Your task to perform on an android device: turn on priority inbox in the gmail app Image 0: 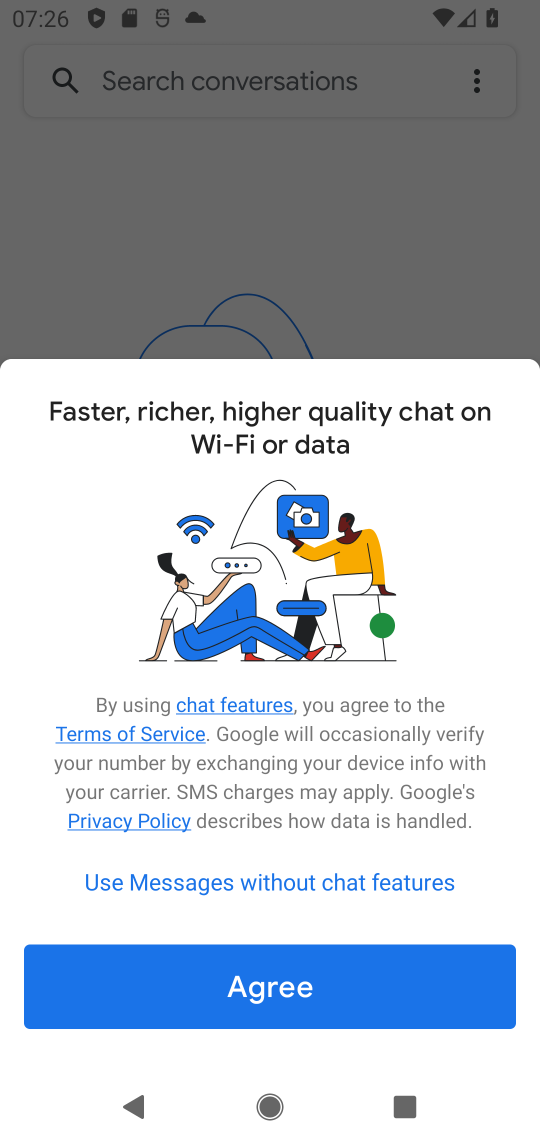
Step 0: press home button
Your task to perform on an android device: turn on priority inbox in the gmail app Image 1: 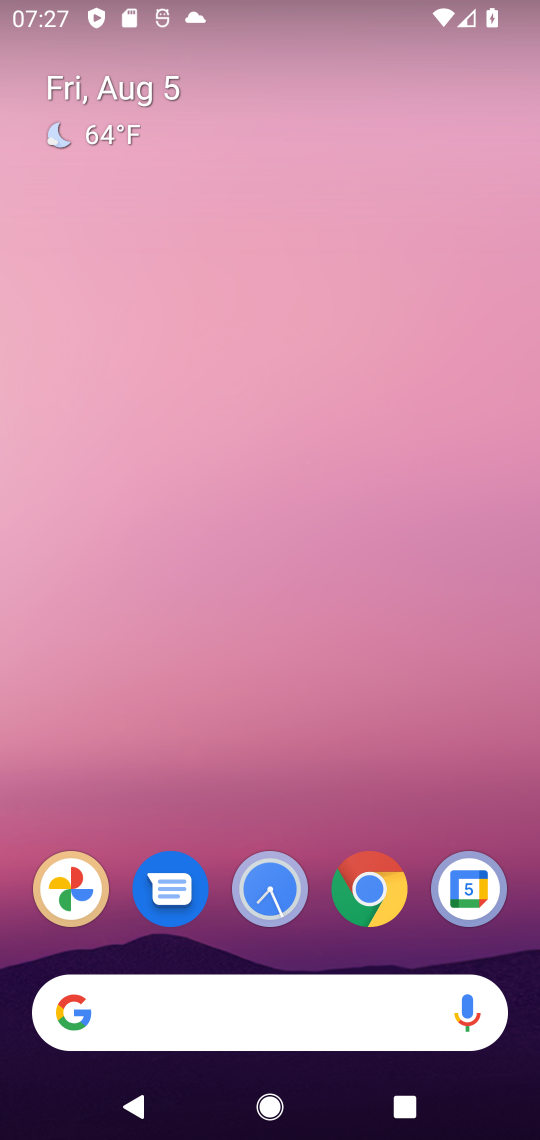
Step 1: drag from (217, 919) to (217, 252)
Your task to perform on an android device: turn on priority inbox in the gmail app Image 2: 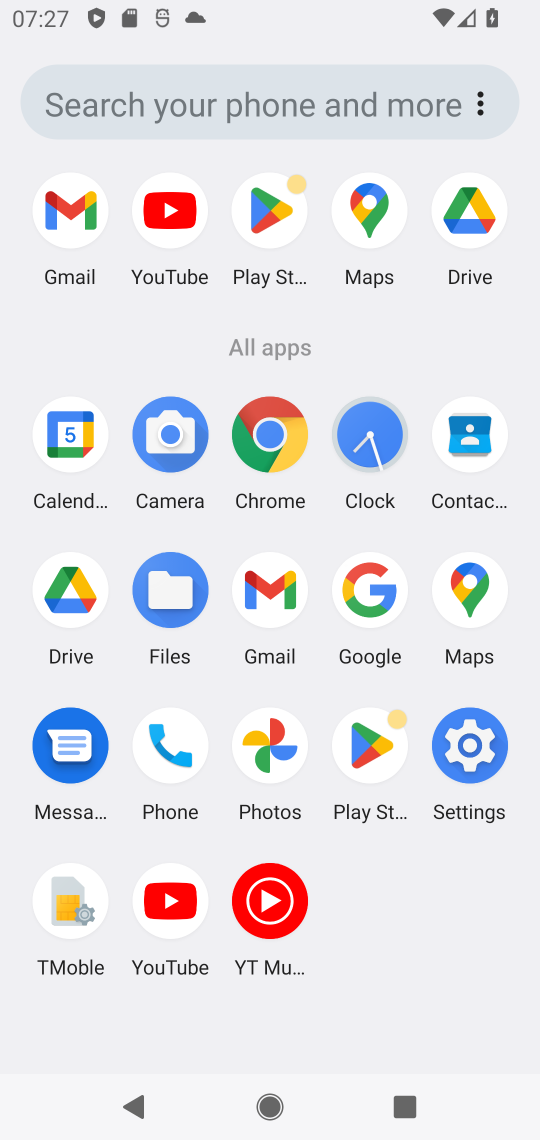
Step 2: click (249, 597)
Your task to perform on an android device: turn on priority inbox in the gmail app Image 3: 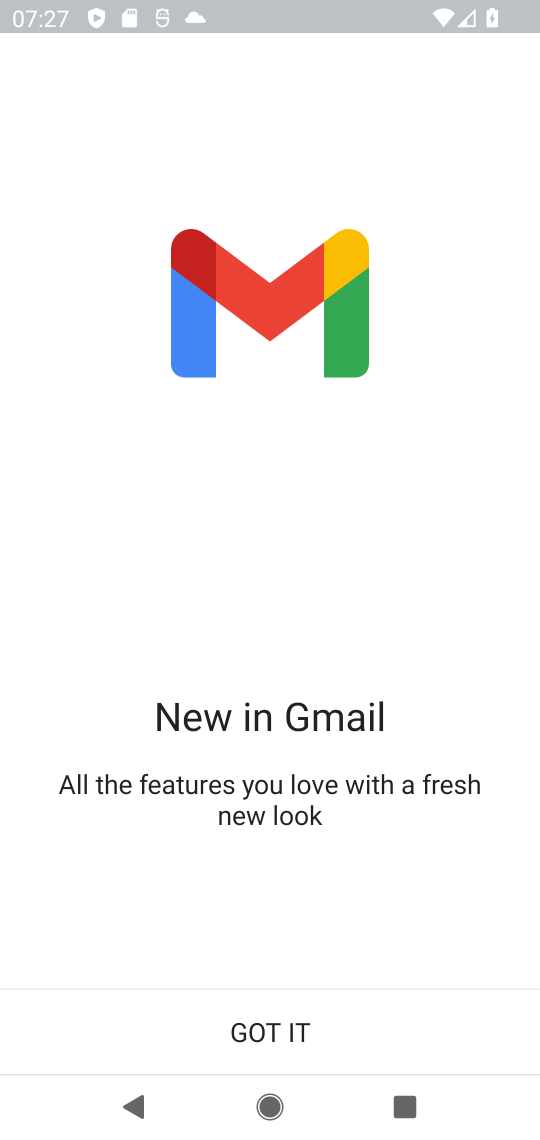
Step 3: click (270, 1043)
Your task to perform on an android device: turn on priority inbox in the gmail app Image 4: 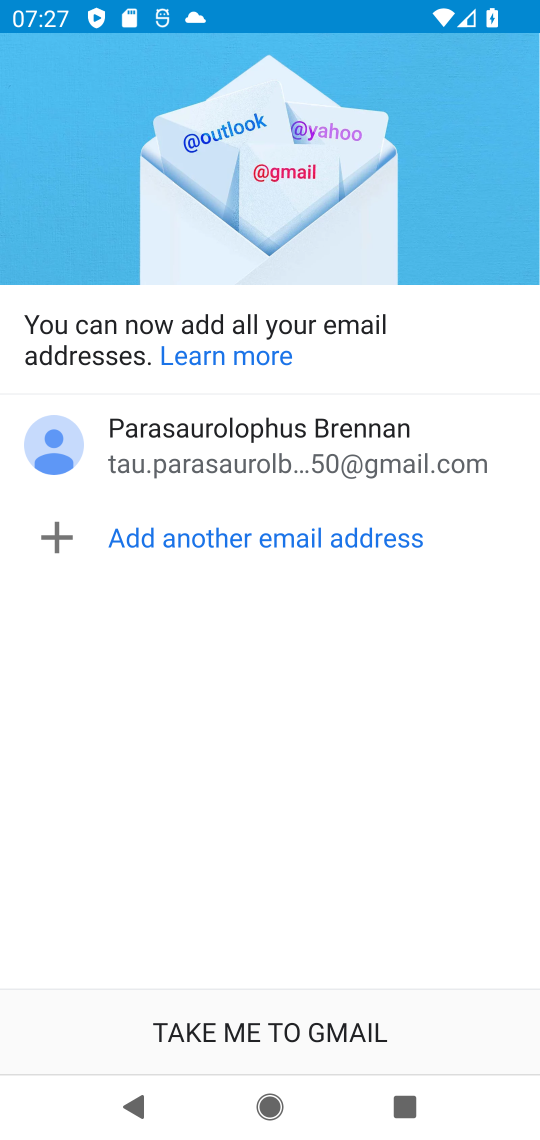
Step 4: click (258, 1025)
Your task to perform on an android device: turn on priority inbox in the gmail app Image 5: 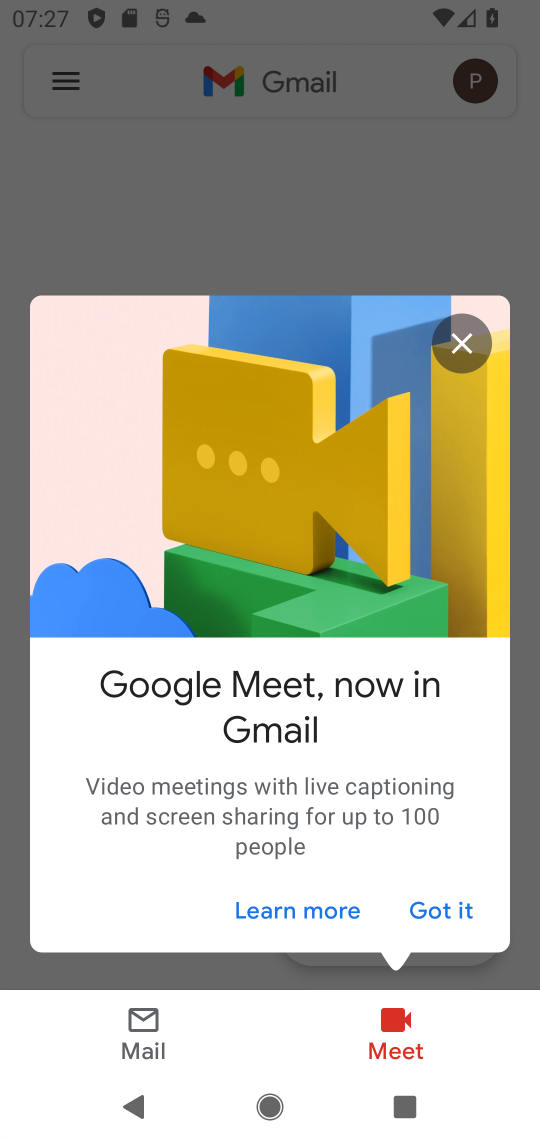
Step 5: click (423, 916)
Your task to perform on an android device: turn on priority inbox in the gmail app Image 6: 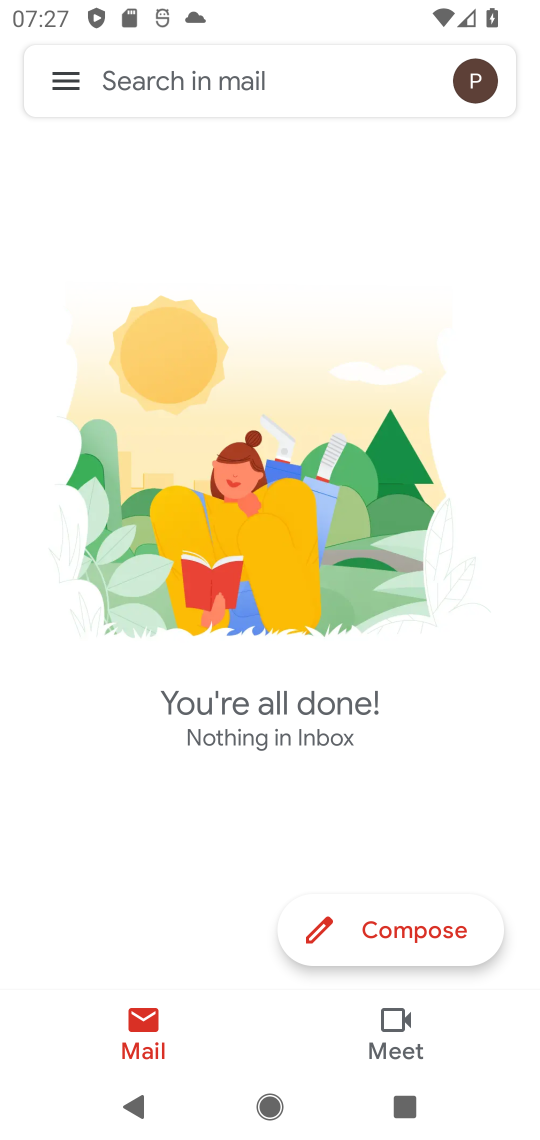
Step 6: click (66, 85)
Your task to perform on an android device: turn on priority inbox in the gmail app Image 7: 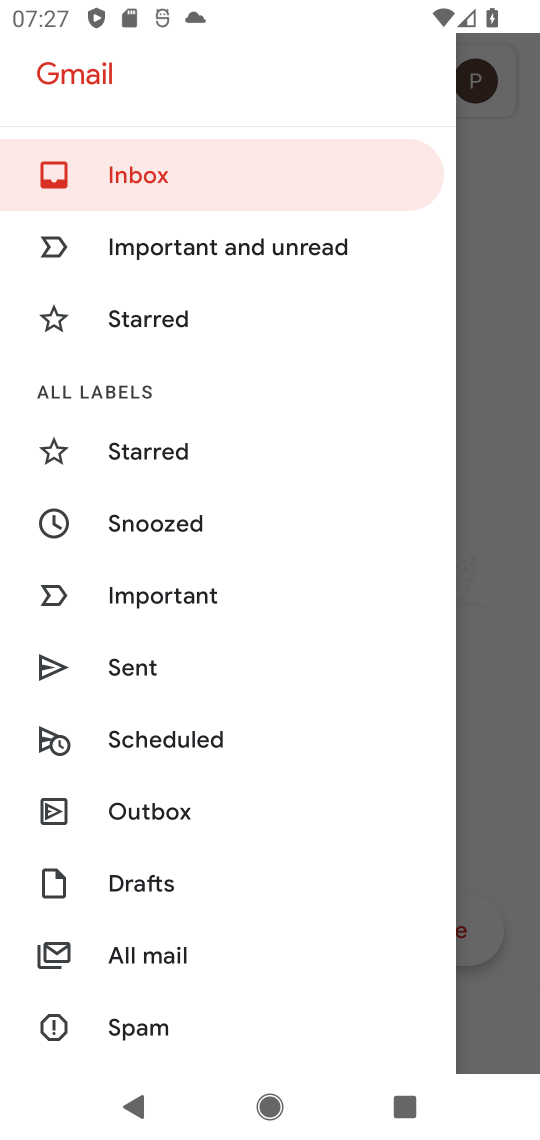
Step 7: drag from (145, 1030) to (144, 451)
Your task to perform on an android device: turn on priority inbox in the gmail app Image 8: 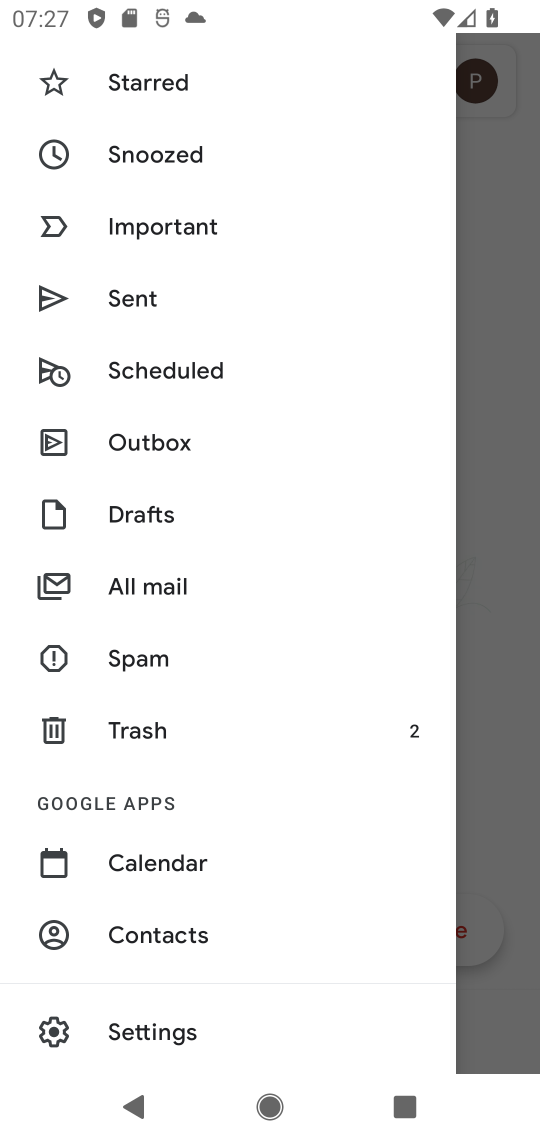
Step 8: click (175, 1030)
Your task to perform on an android device: turn on priority inbox in the gmail app Image 9: 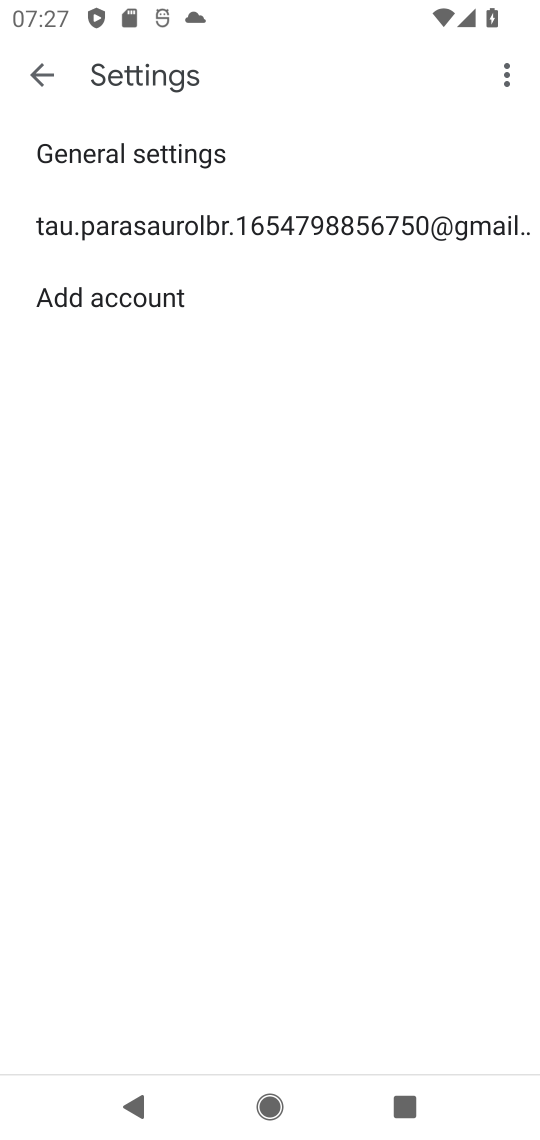
Step 9: click (137, 208)
Your task to perform on an android device: turn on priority inbox in the gmail app Image 10: 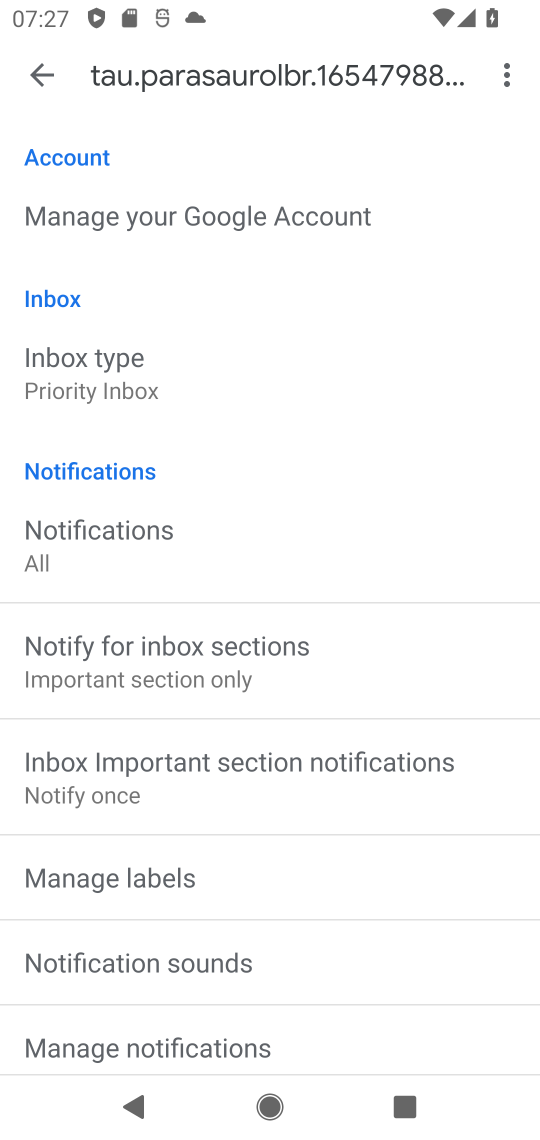
Step 10: task complete